Your task to perform on an android device: Open the calendar app, open the side menu, and click the "Day" option Image 0: 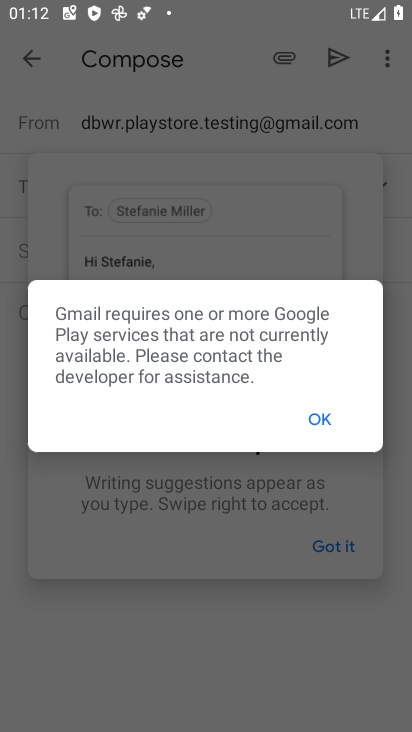
Step 0: press home button
Your task to perform on an android device: Open the calendar app, open the side menu, and click the "Day" option Image 1: 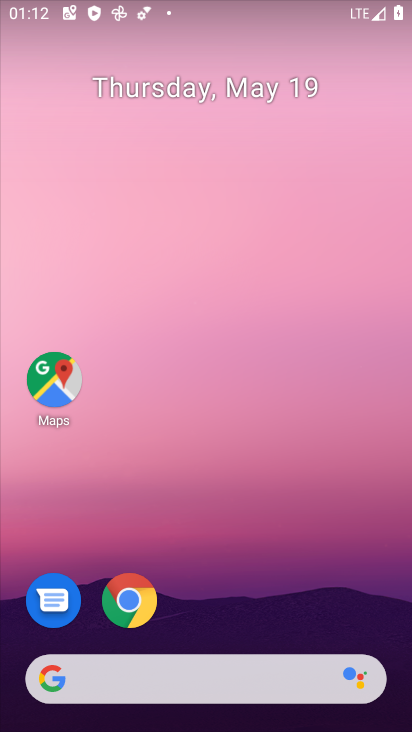
Step 1: drag from (198, 448) to (215, 78)
Your task to perform on an android device: Open the calendar app, open the side menu, and click the "Day" option Image 2: 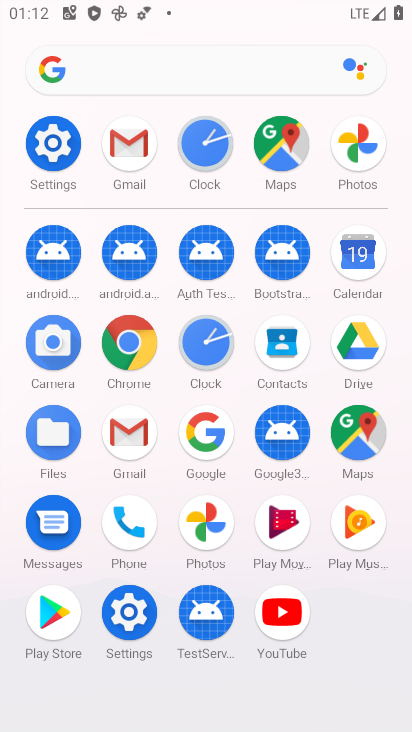
Step 2: click (363, 257)
Your task to perform on an android device: Open the calendar app, open the side menu, and click the "Day" option Image 3: 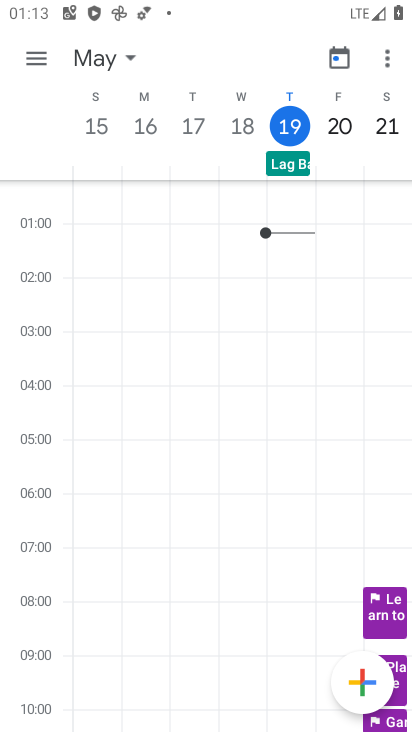
Step 3: click (38, 56)
Your task to perform on an android device: Open the calendar app, open the side menu, and click the "Day" option Image 4: 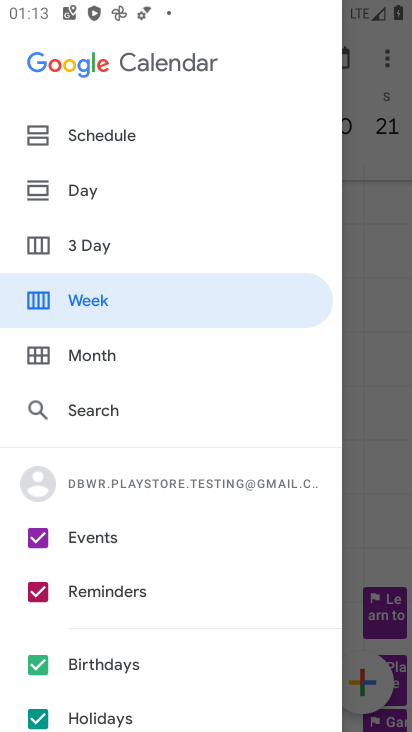
Step 4: click (67, 184)
Your task to perform on an android device: Open the calendar app, open the side menu, and click the "Day" option Image 5: 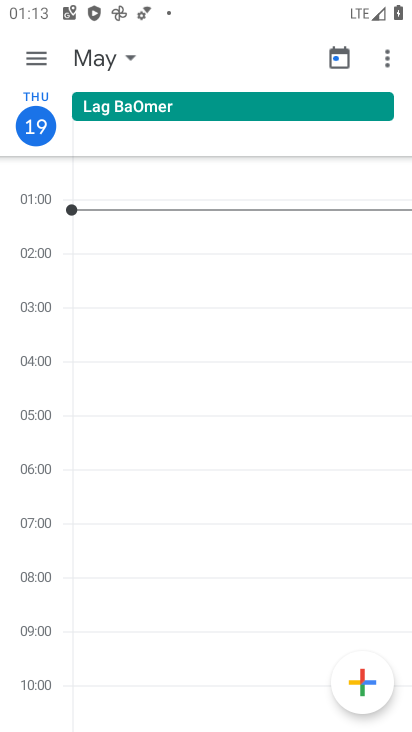
Step 5: task complete